Your task to perform on an android device: Open Chrome and go to settings Image 0: 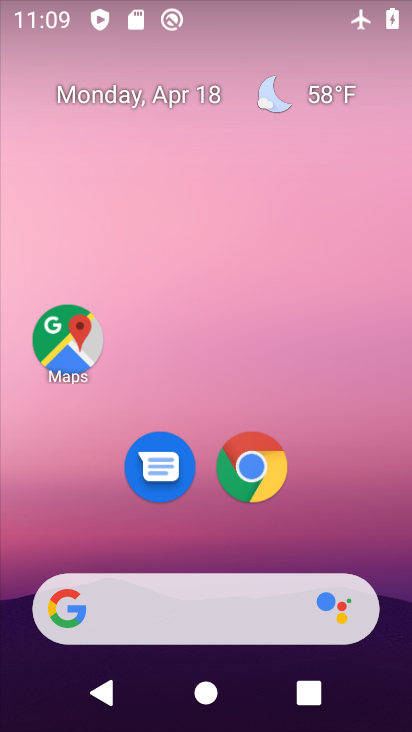
Step 0: click (261, 470)
Your task to perform on an android device: Open Chrome and go to settings Image 1: 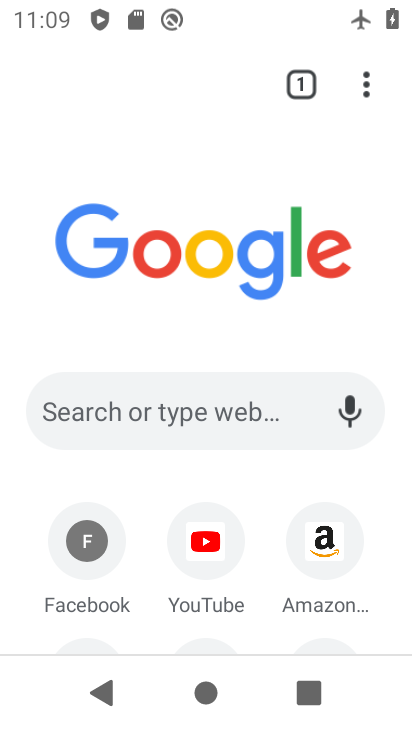
Step 1: click (363, 81)
Your task to perform on an android device: Open Chrome and go to settings Image 2: 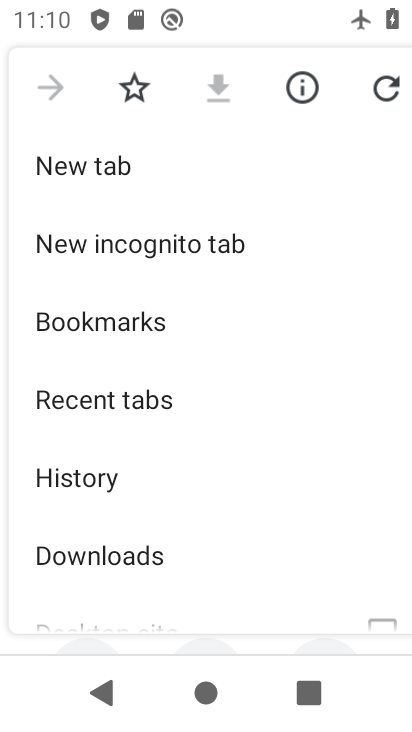
Step 2: drag from (212, 494) to (170, 109)
Your task to perform on an android device: Open Chrome and go to settings Image 3: 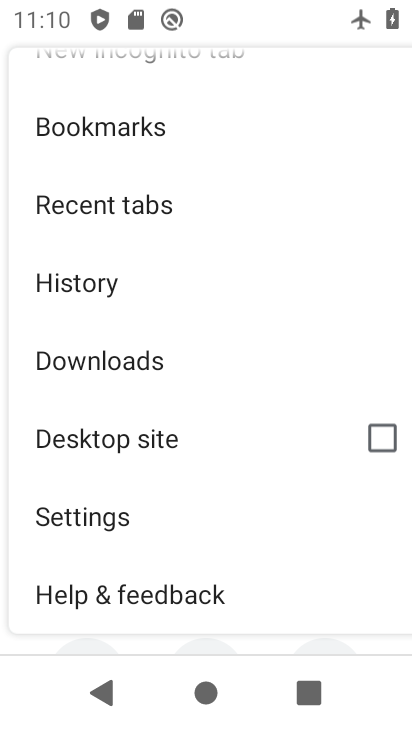
Step 3: click (130, 510)
Your task to perform on an android device: Open Chrome and go to settings Image 4: 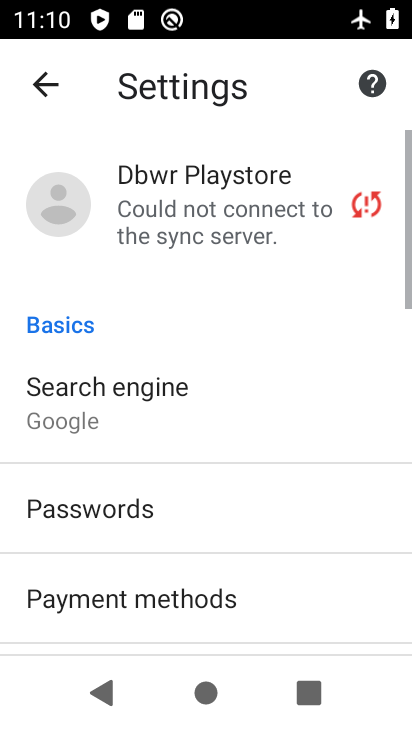
Step 4: task complete